Your task to perform on an android device: Find coffee shops on Maps Image 0: 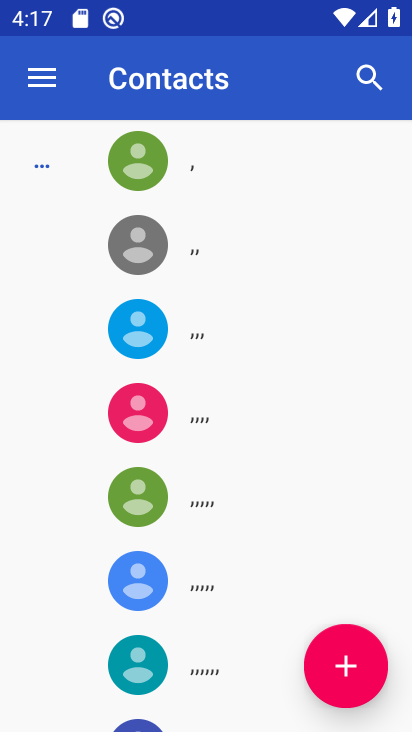
Step 0: press back button
Your task to perform on an android device: Find coffee shops on Maps Image 1: 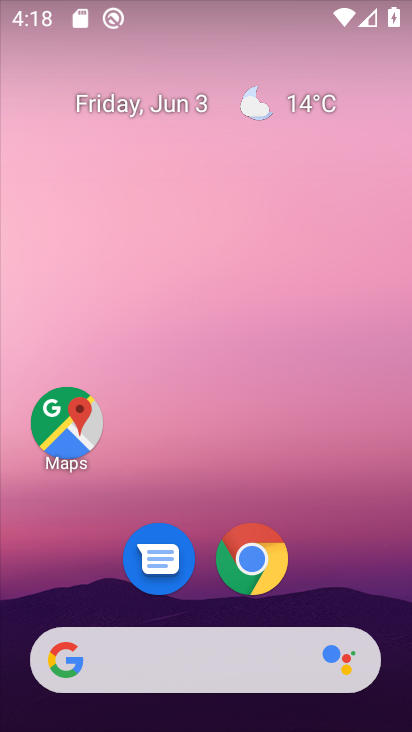
Step 1: click (186, 166)
Your task to perform on an android device: Find coffee shops on Maps Image 2: 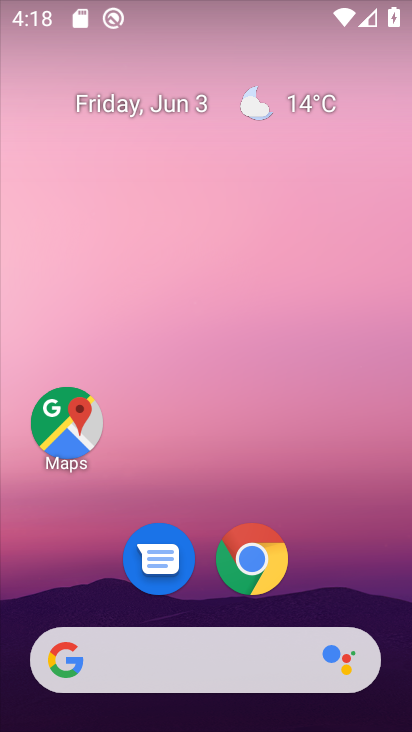
Step 2: drag from (191, 566) to (145, 93)
Your task to perform on an android device: Find coffee shops on Maps Image 3: 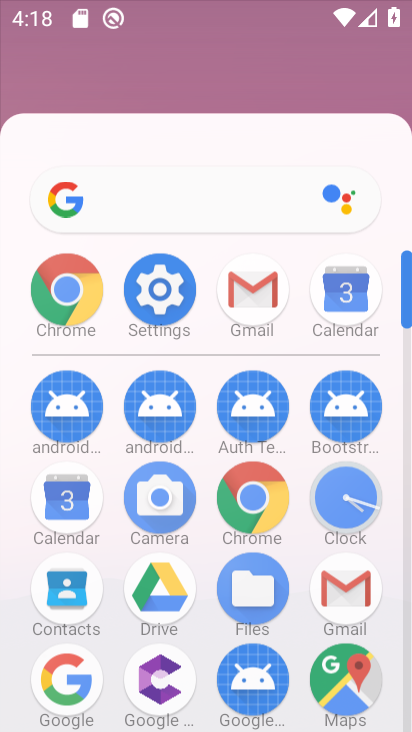
Step 3: drag from (214, 571) to (172, 79)
Your task to perform on an android device: Find coffee shops on Maps Image 4: 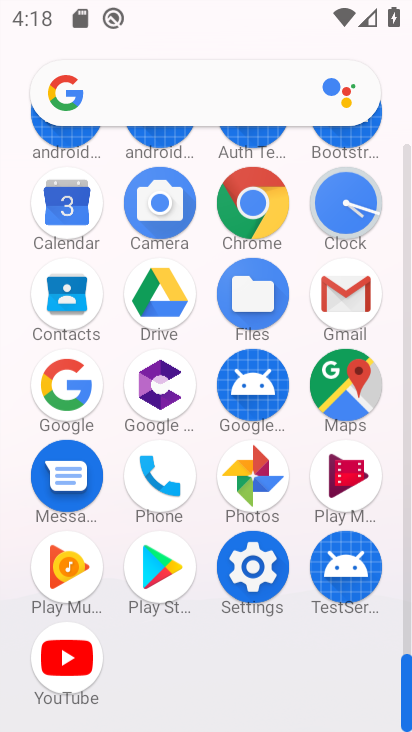
Step 4: drag from (183, 523) to (141, 133)
Your task to perform on an android device: Find coffee shops on Maps Image 5: 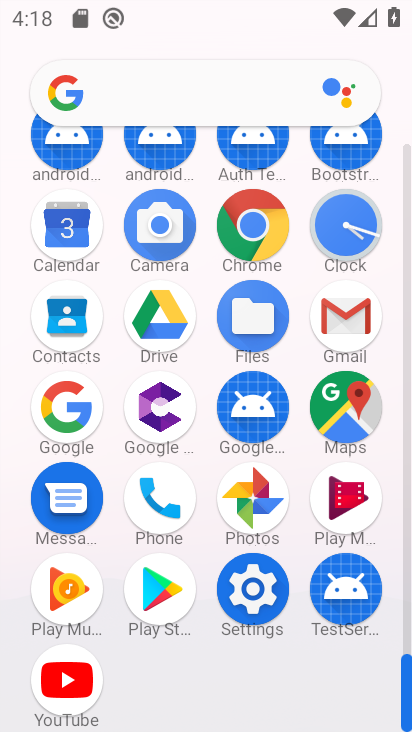
Step 5: click (336, 415)
Your task to perform on an android device: Find coffee shops on Maps Image 6: 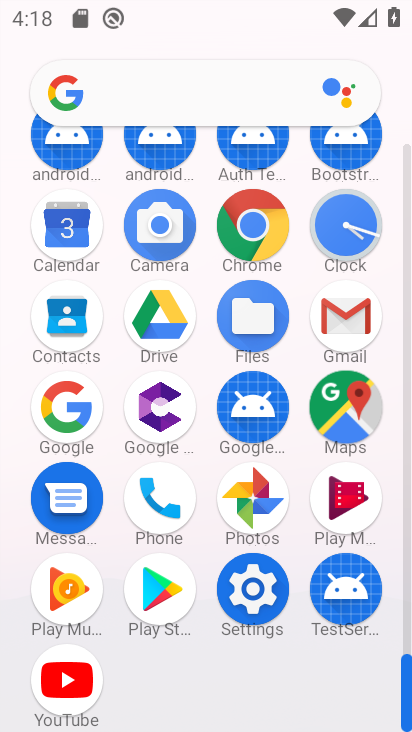
Step 6: click (337, 414)
Your task to perform on an android device: Find coffee shops on Maps Image 7: 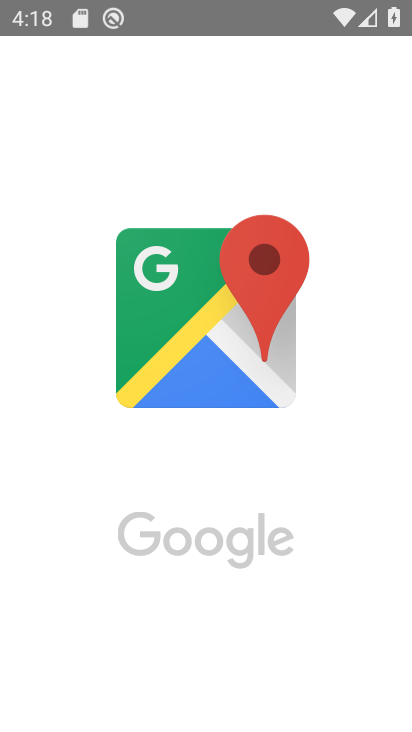
Step 7: click (341, 407)
Your task to perform on an android device: Find coffee shops on Maps Image 8: 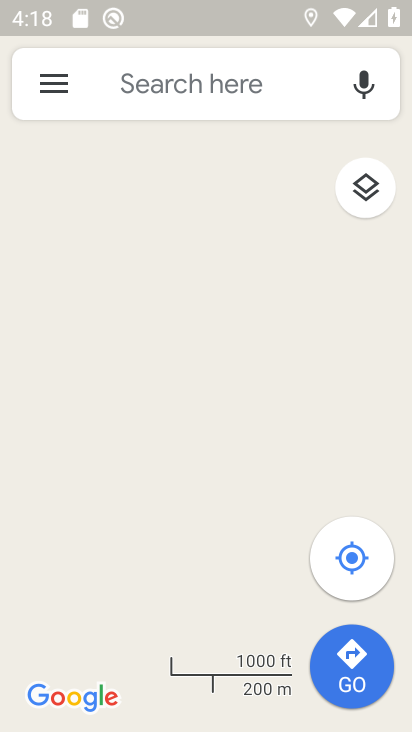
Step 8: click (158, 89)
Your task to perform on an android device: Find coffee shops on Maps Image 9: 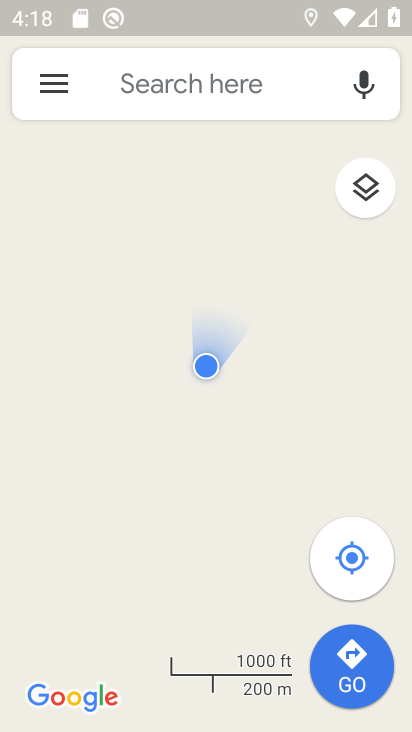
Step 9: click (150, 82)
Your task to perform on an android device: Find coffee shops on Maps Image 10: 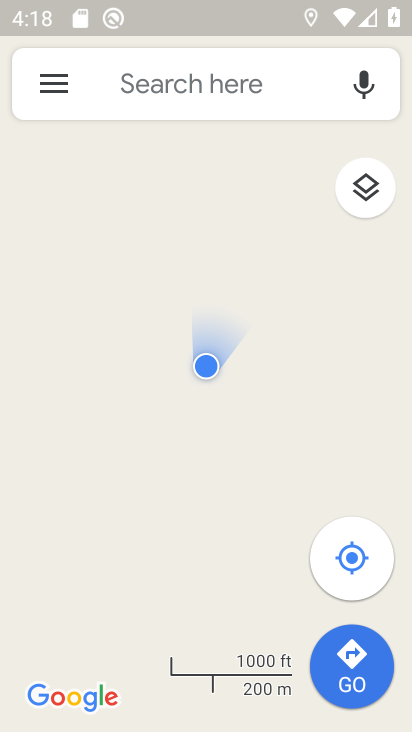
Step 10: click (147, 92)
Your task to perform on an android device: Find coffee shops on Maps Image 11: 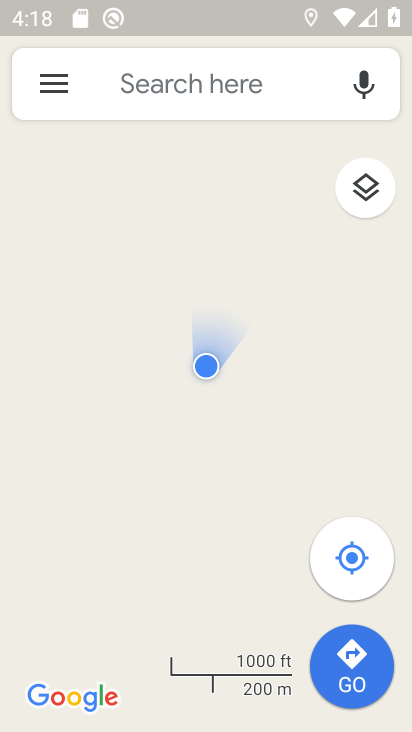
Step 11: click (147, 92)
Your task to perform on an android device: Find coffee shops on Maps Image 12: 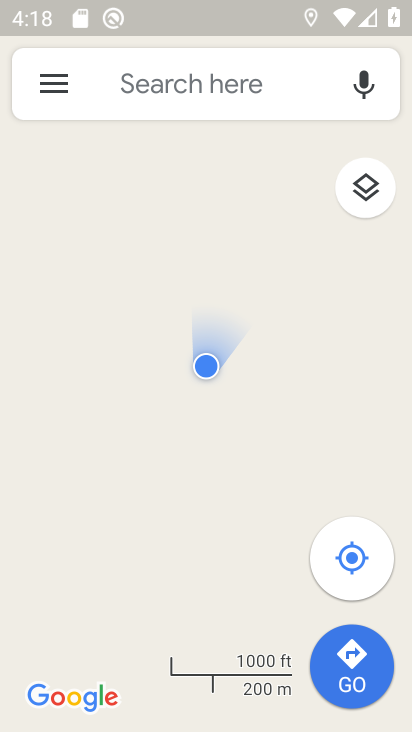
Step 12: click (147, 92)
Your task to perform on an android device: Find coffee shops on Maps Image 13: 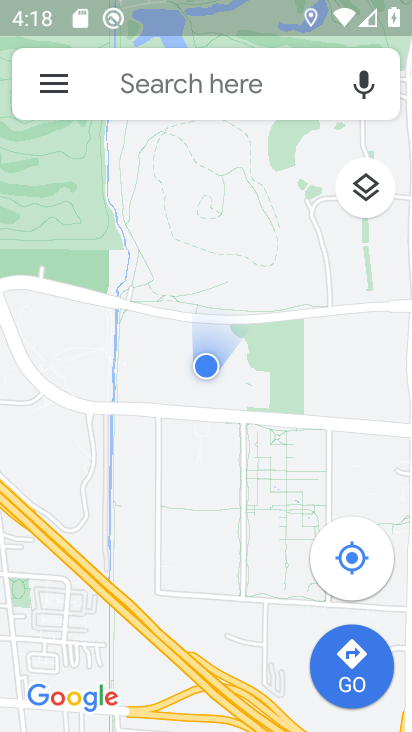
Step 13: click (144, 95)
Your task to perform on an android device: Find coffee shops on Maps Image 14: 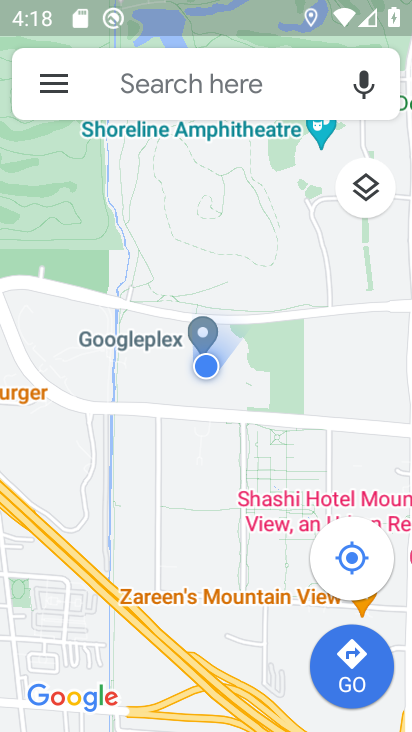
Step 14: click (147, 92)
Your task to perform on an android device: Find coffee shops on Maps Image 15: 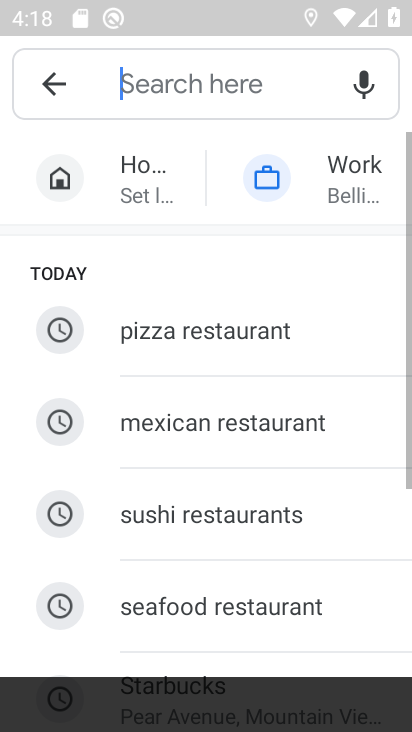
Step 15: click (125, 78)
Your task to perform on an android device: Find coffee shops on Maps Image 16: 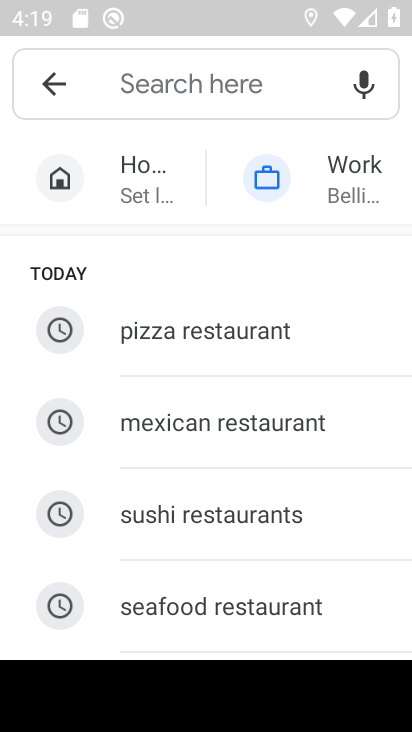
Step 16: type "COFFEE"
Your task to perform on an android device: Find coffee shops on Maps Image 17: 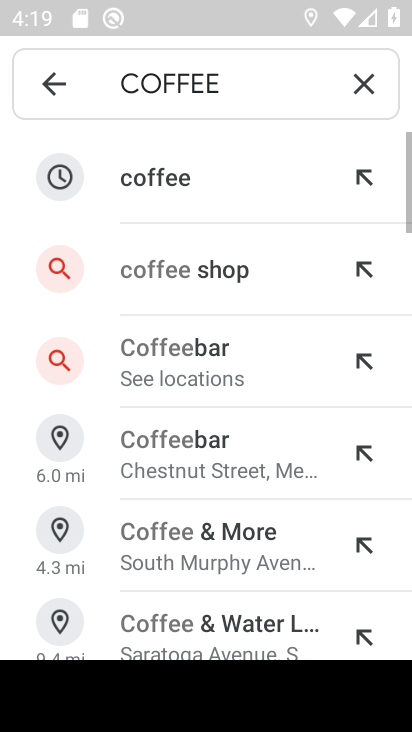
Step 17: click (174, 183)
Your task to perform on an android device: Find coffee shops on Maps Image 18: 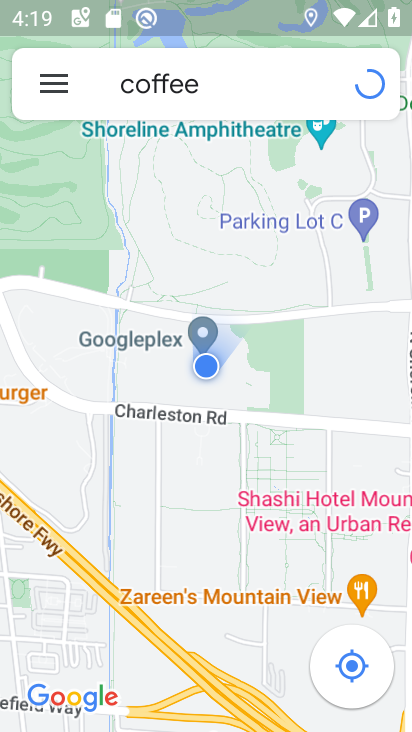
Step 18: task complete